Your task to perform on an android device: What's on my calendar today? Image 0: 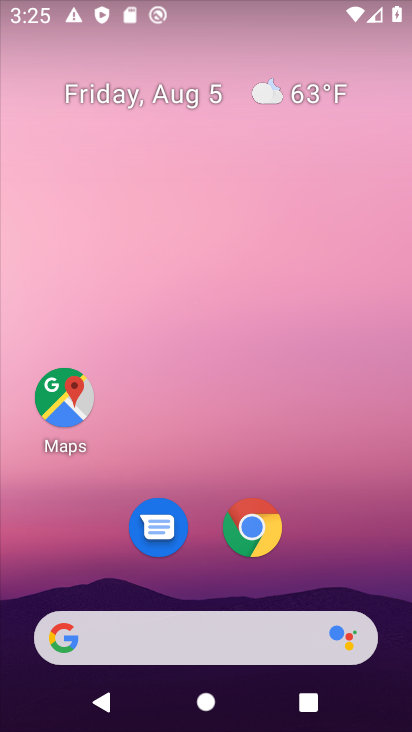
Step 0: drag from (234, 583) to (179, 116)
Your task to perform on an android device: What's on my calendar today? Image 1: 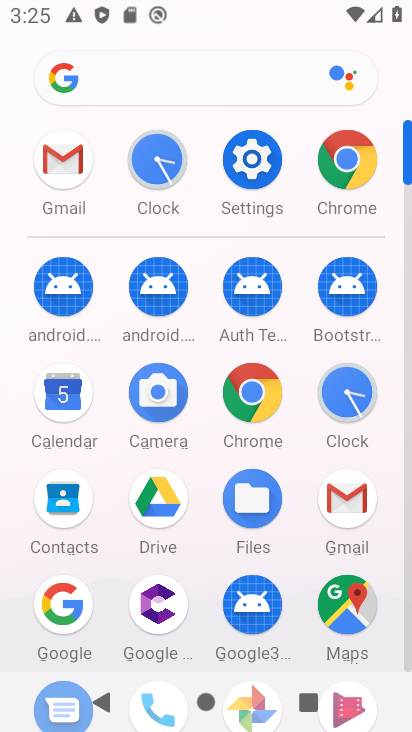
Step 1: click (73, 405)
Your task to perform on an android device: What's on my calendar today? Image 2: 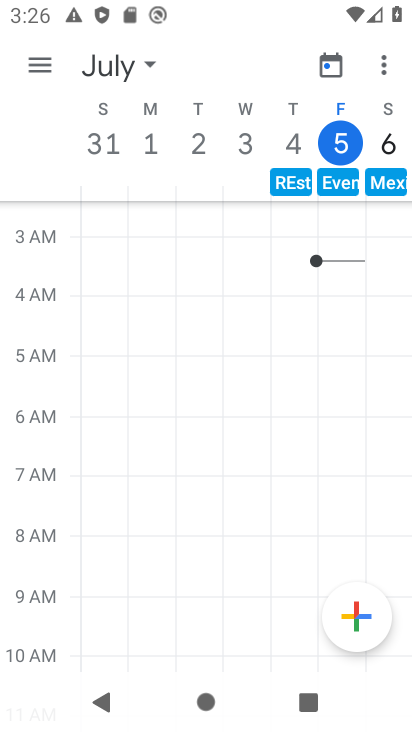
Step 2: click (149, 63)
Your task to perform on an android device: What's on my calendar today? Image 3: 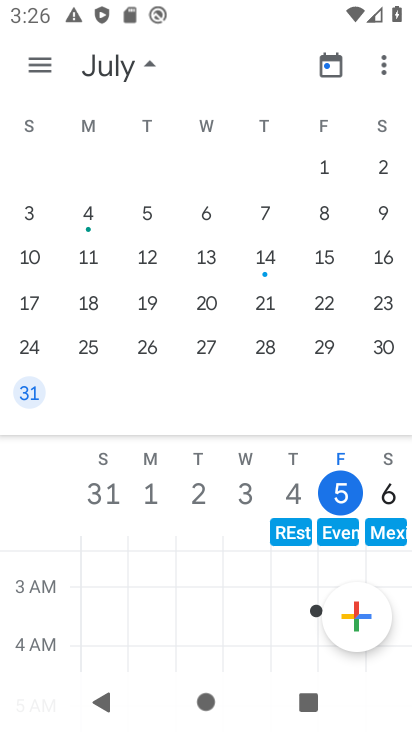
Step 3: drag from (353, 235) to (18, 264)
Your task to perform on an android device: What's on my calendar today? Image 4: 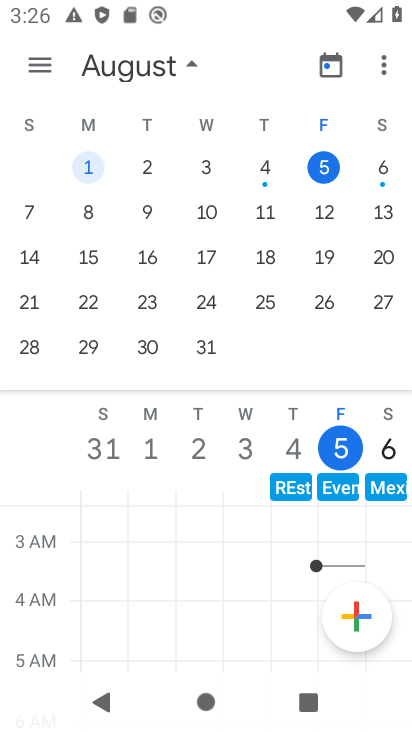
Step 4: drag from (323, 236) to (56, 274)
Your task to perform on an android device: What's on my calendar today? Image 5: 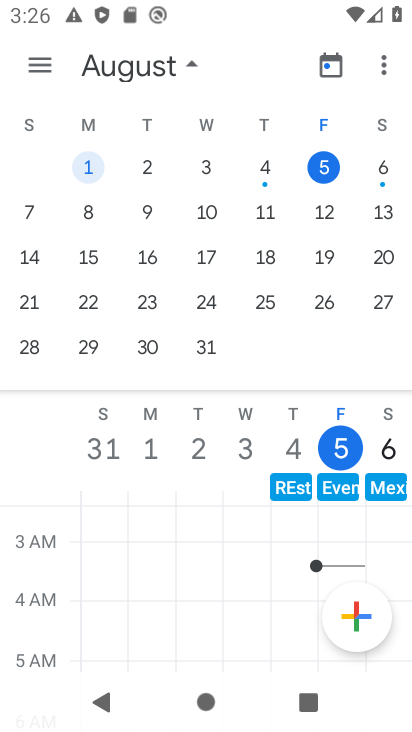
Step 5: drag from (350, 266) to (277, 272)
Your task to perform on an android device: What's on my calendar today? Image 6: 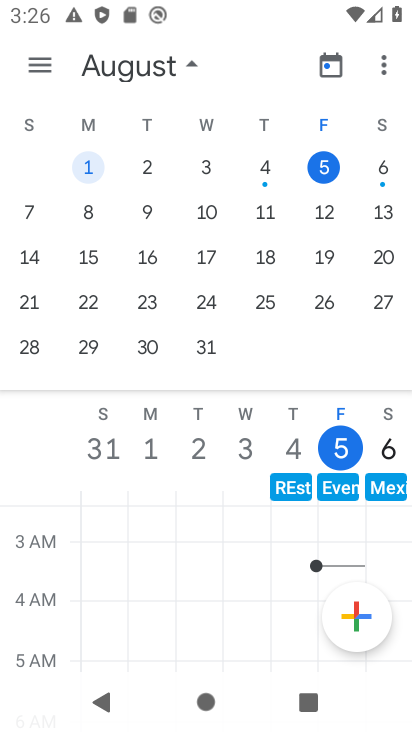
Step 6: click (327, 164)
Your task to perform on an android device: What's on my calendar today? Image 7: 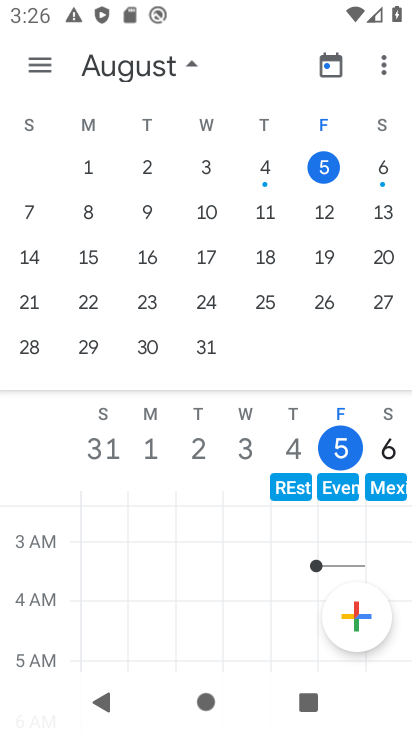
Step 7: click (328, 162)
Your task to perform on an android device: What's on my calendar today? Image 8: 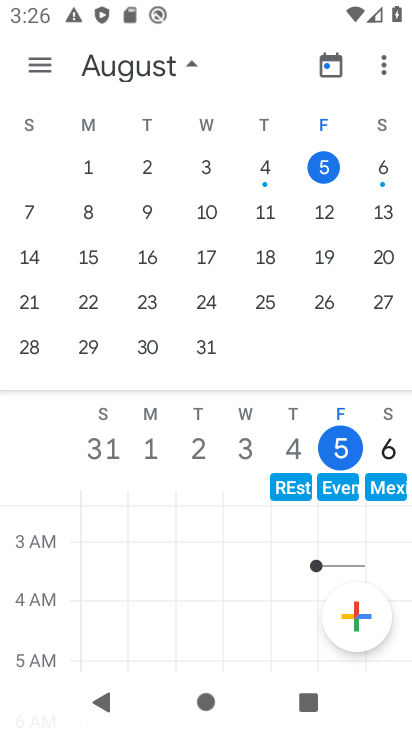
Step 8: click (331, 161)
Your task to perform on an android device: What's on my calendar today? Image 9: 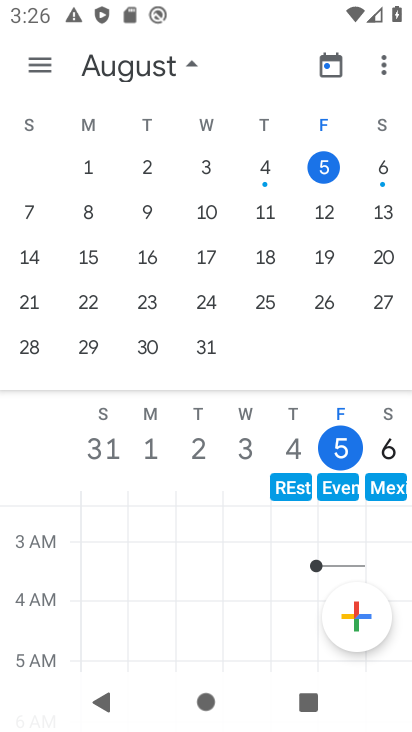
Step 9: click (337, 448)
Your task to perform on an android device: What's on my calendar today? Image 10: 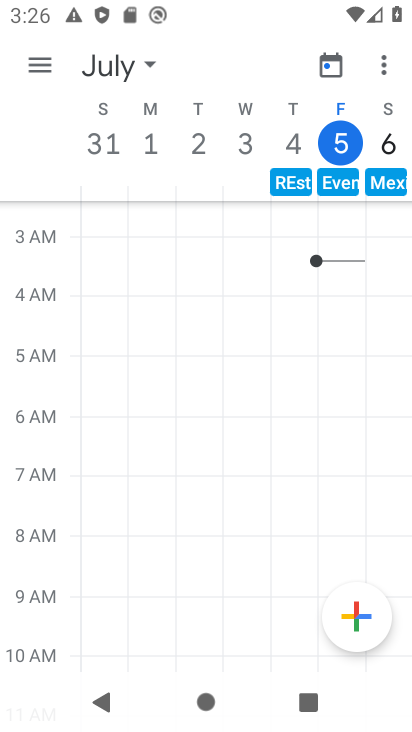
Step 10: click (347, 145)
Your task to perform on an android device: What's on my calendar today? Image 11: 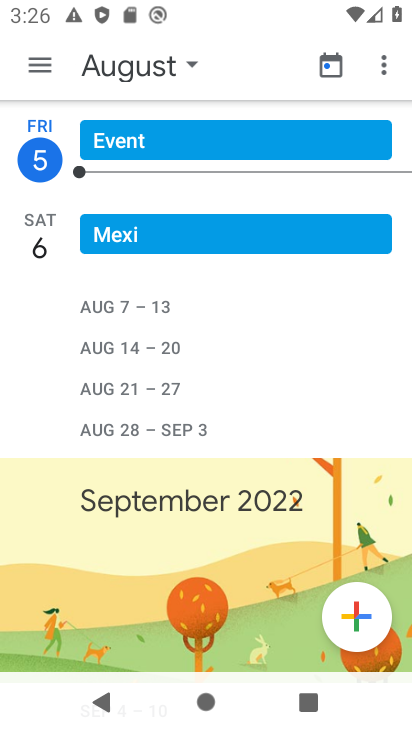
Step 11: task complete